Your task to perform on an android device: open sync settings in chrome Image 0: 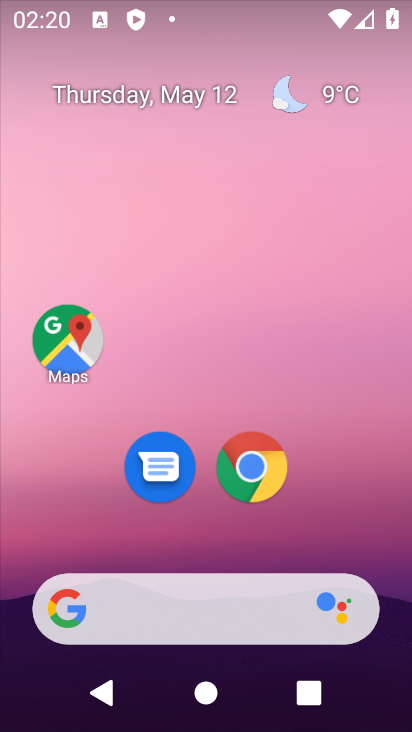
Step 0: drag from (316, 504) to (342, 201)
Your task to perform on an android device: open sync settings in chrome Image 1: 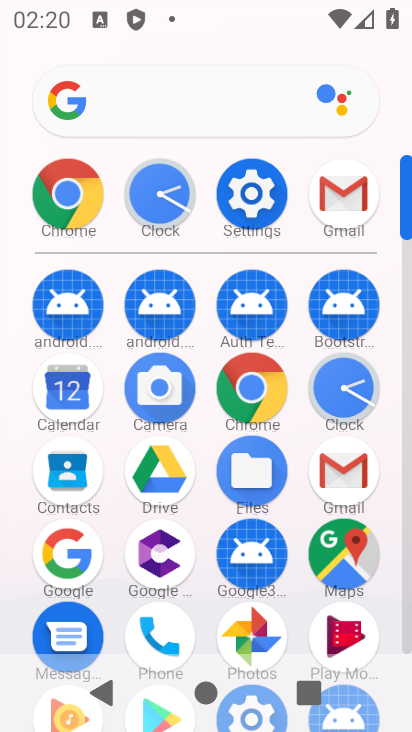
Step 1: click (70, 191)
Your task to perform on an android device: open sync settings in chrome Image 2: 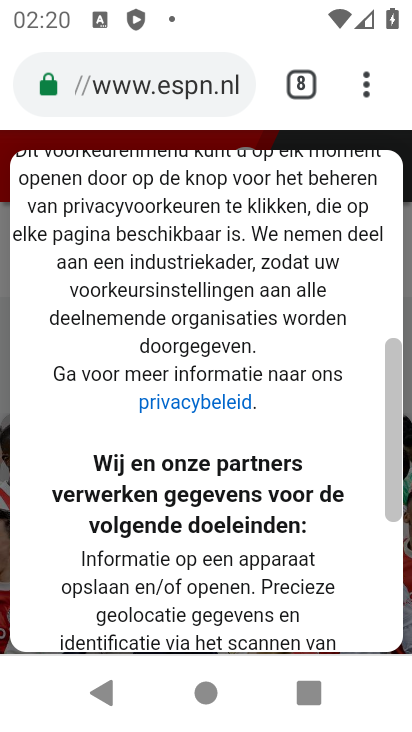
Step 2: click (346, 83)
Your task to perform on an android device: open sync settings in chrome Image 3: 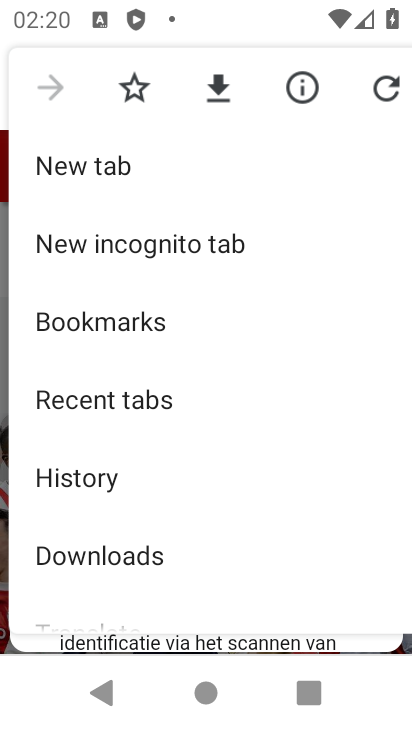
Step 3: drag from (265, 559) to (294, 153)
Your task to perform on an android device: open sync settings in chrome Image 4: 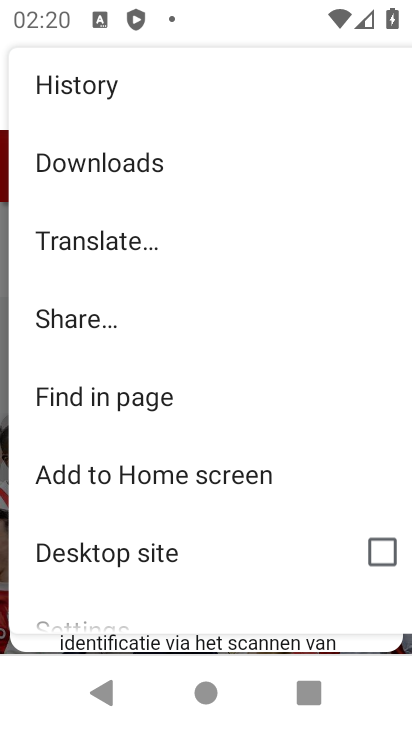
Step 4: drag from (204, 538) to (263, 220)
Your task to perform on an android device: open sync settings in chrome Image 5: 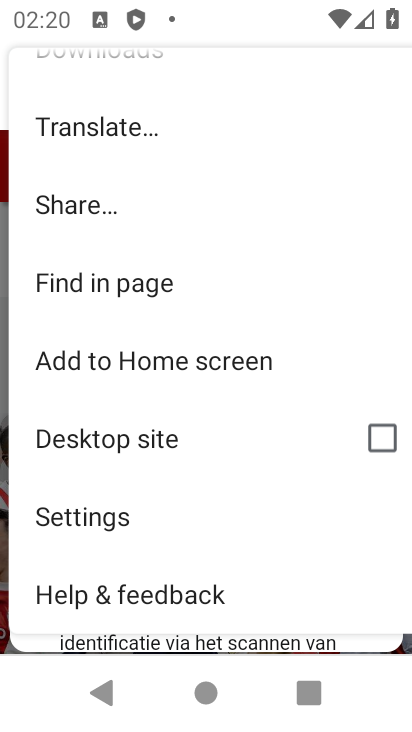
Step 5: click (95, 525)
Your task to perform on an android device: open sync settings in chrome Image 6: 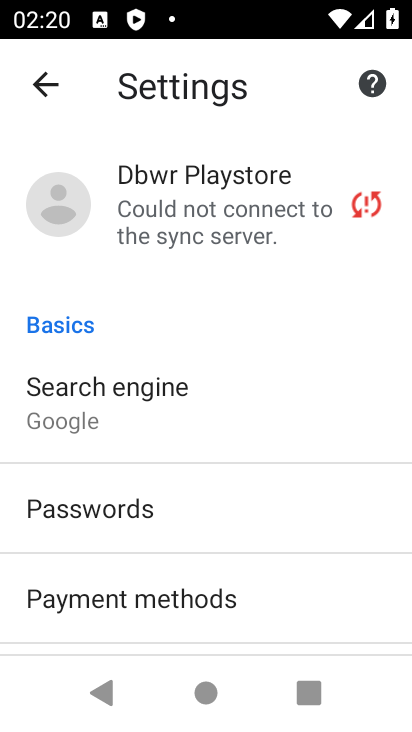
Step 6: click (164, 207)
Your task to perform on an android device: open sync settings in chrome Image 7: 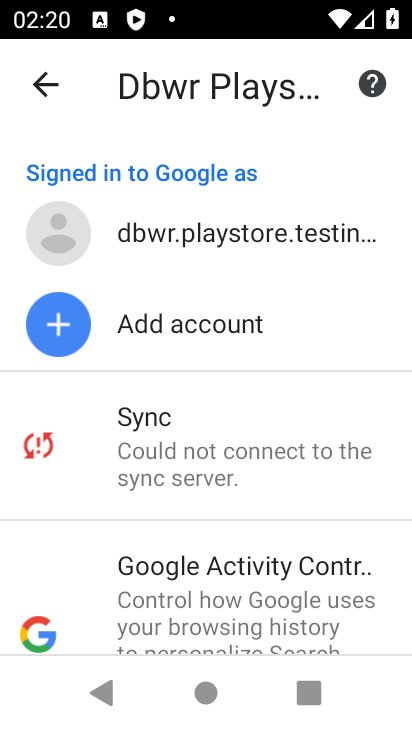
Step 7: task complete